Your task to perform on an android device: Go to notification settings Image 0: 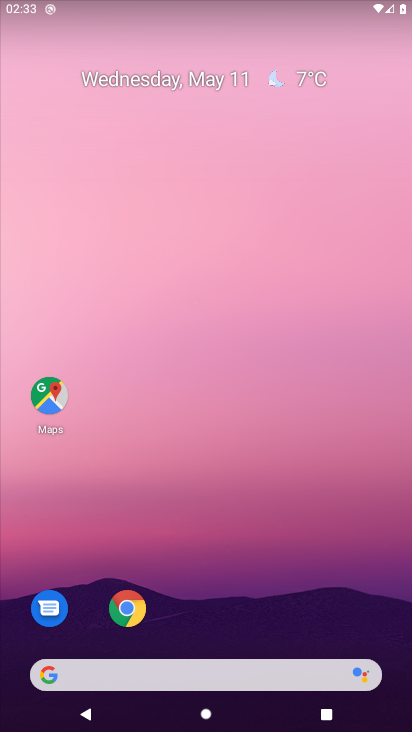
Step 0: drag from (237, 630) to (249, 14)
Your task to perform on an android device: Go to notification settings Image 1: 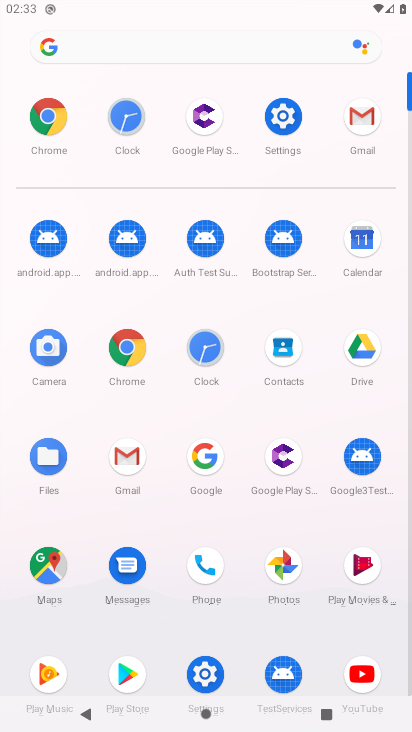
Step 1: click (283, 123)
Your task to perform on an android device: Go to notification settings Image 2: 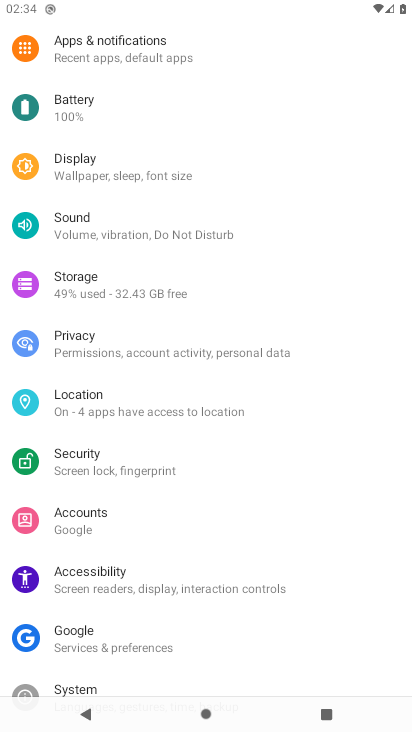
Step 2: click (136, 50)
Your task to perform on an android device: Go to notification settings Image 3: 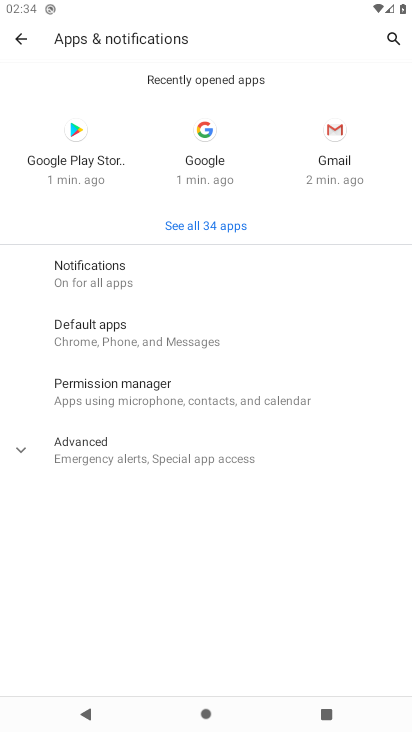
Step 3: click (132, 271)
Your task to perform on an android device: Go to notification settings Image 4: 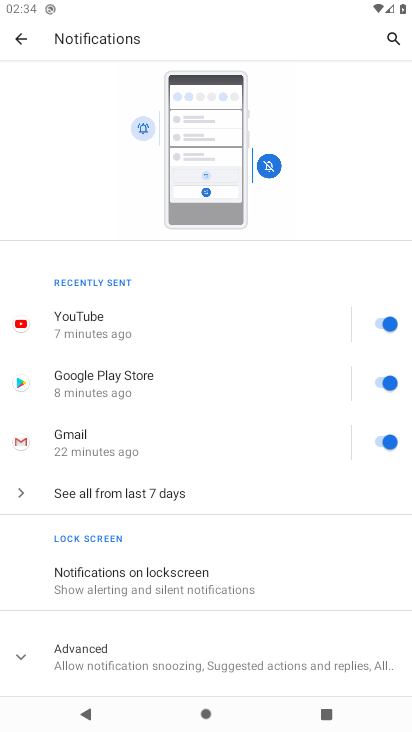
Step 4: drag from (212, 535) to (206, 232)
Your task to perform on an android device: Go to notification settings Image 5: 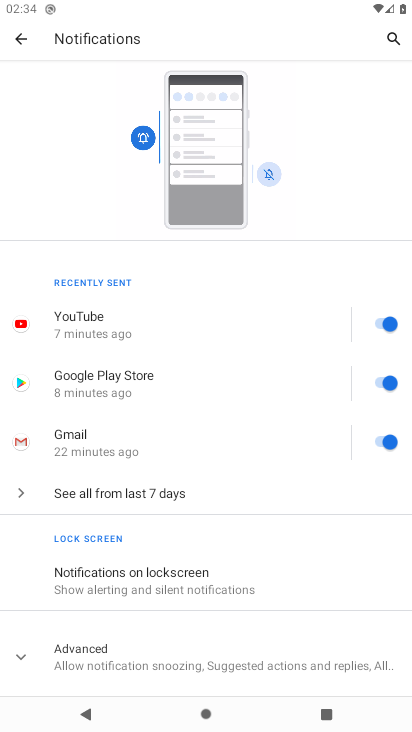
Step 5: click (50, 661)
Your task to perform on an android device: Go to notification settings Image 6: 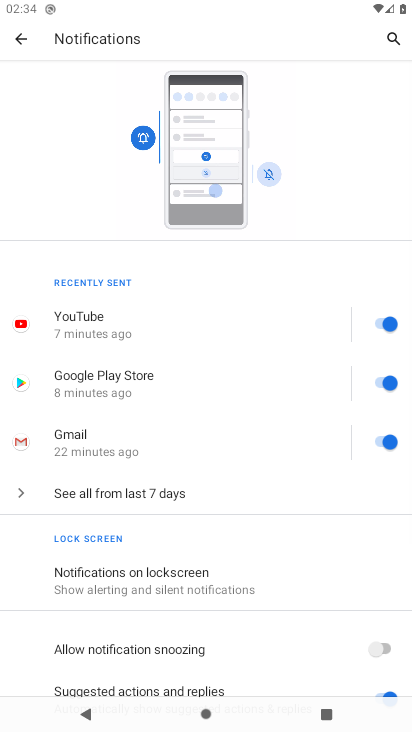
Step 6: task complete